Your task to perform on an android device: open app "NewsBreak: Local News & Alerts" (install if not already installed) Image 0: 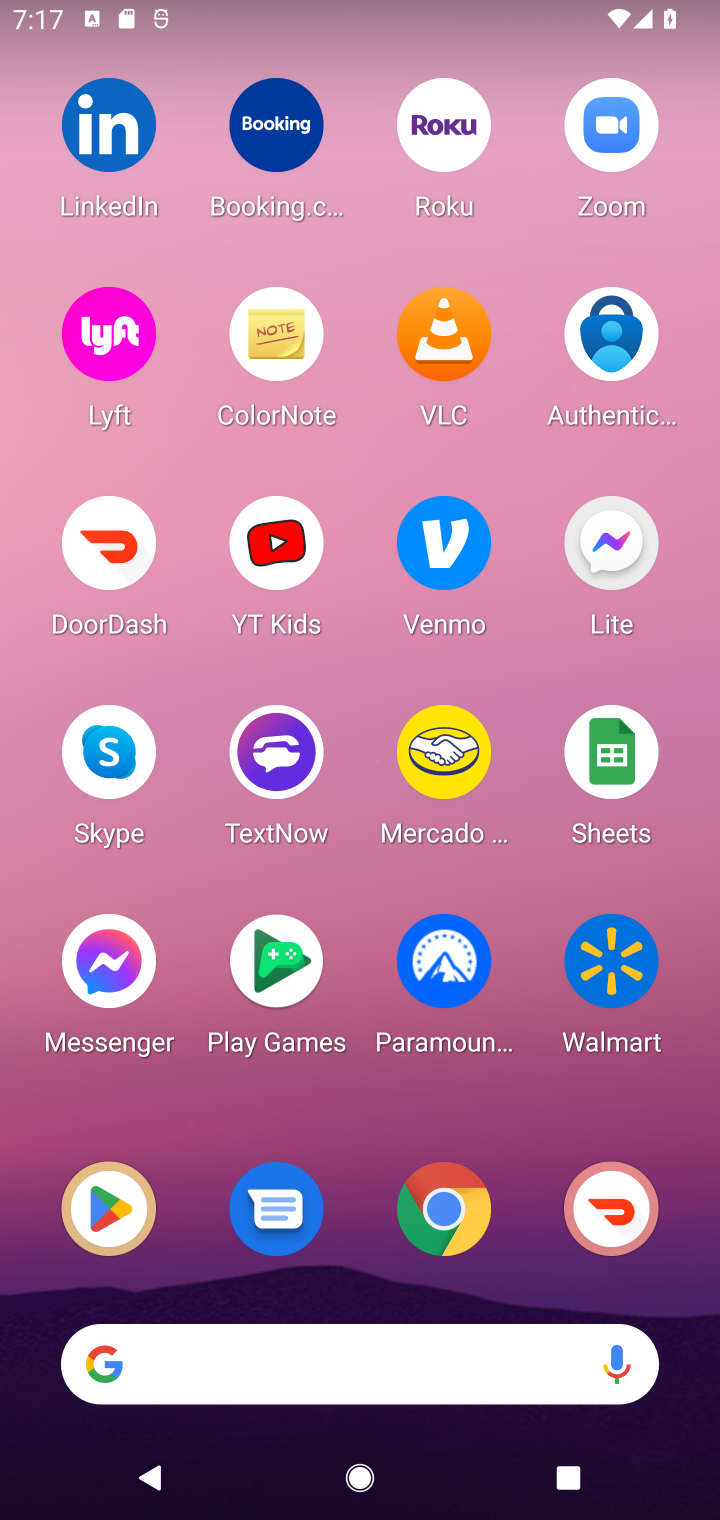
Step 0: click (119, 1219)
Your task to perform on an android device: open app "NewsBreak: Local News & Alerts" (install if not already installed) Image 1: 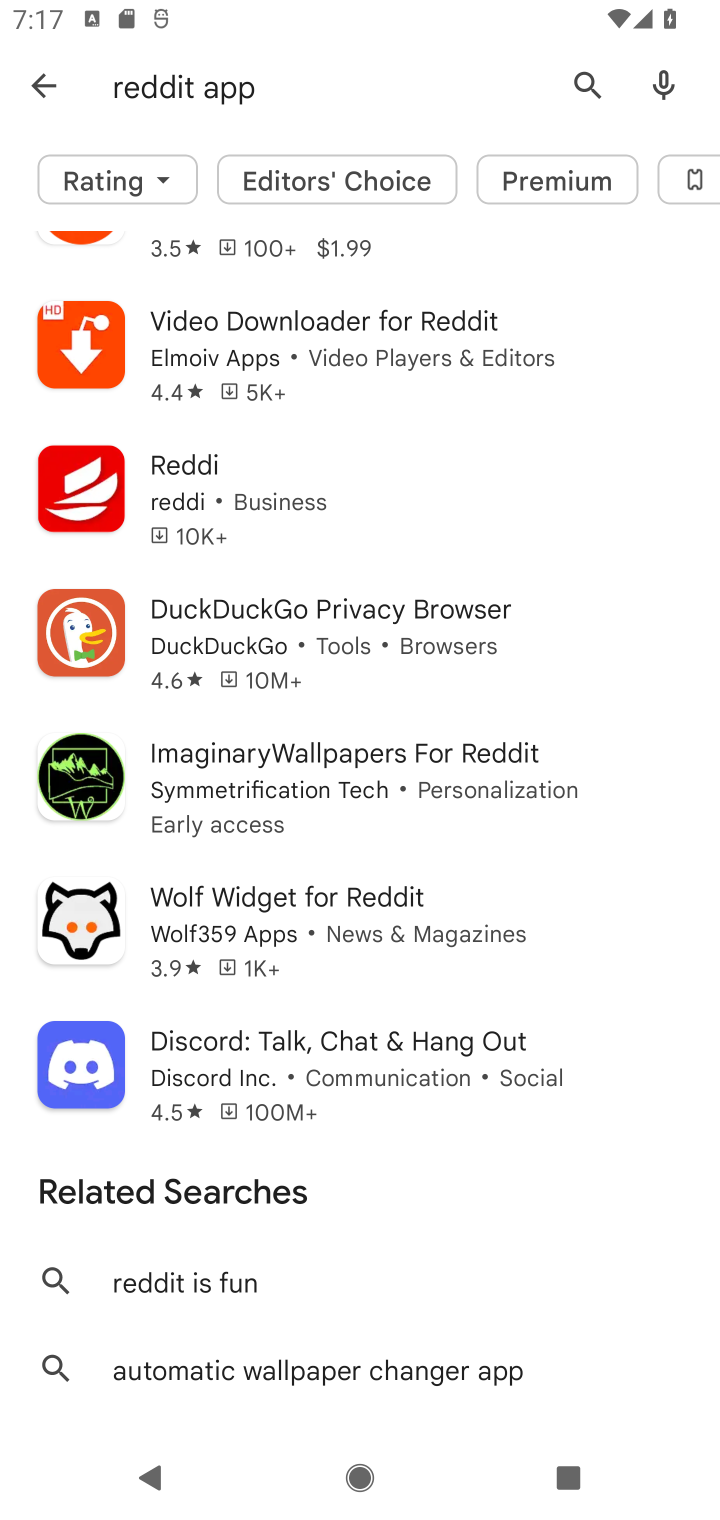
Step 1: click (599, 91)
Your task to perform on an android device: open app "NewsBreak: Local News & Alerts" (install if not already installed) Image 2: 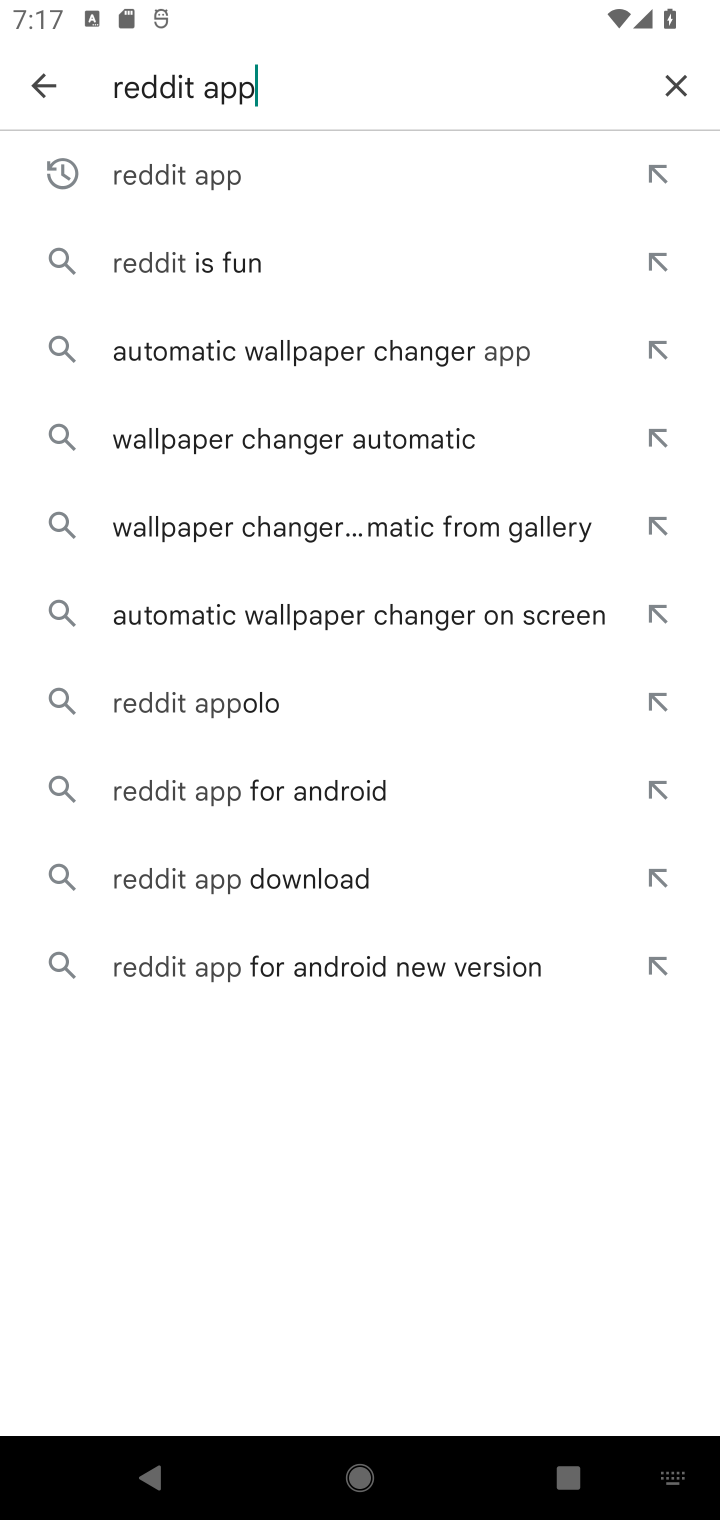
Step 2: click (655, 91)
Your task to perform on an android device: open app "NewsBreak: Local News & Alerts" (install if not already installed) Image 3: 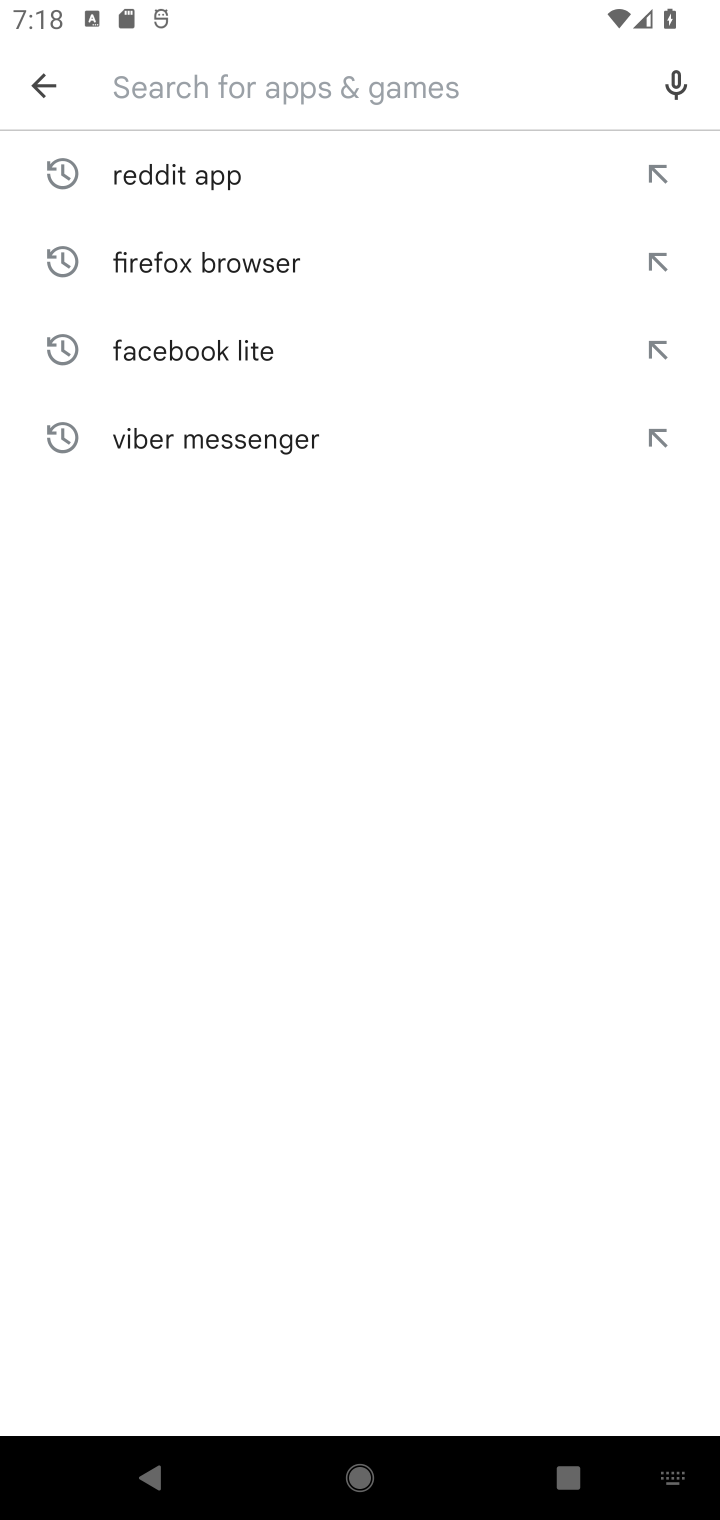
Step 3: type "NewsBreak: Local News & Alerts"
Your task to perform on an android device: open app "NewsBreak: Local News & Alerts" (install if not already installed) Image 4: 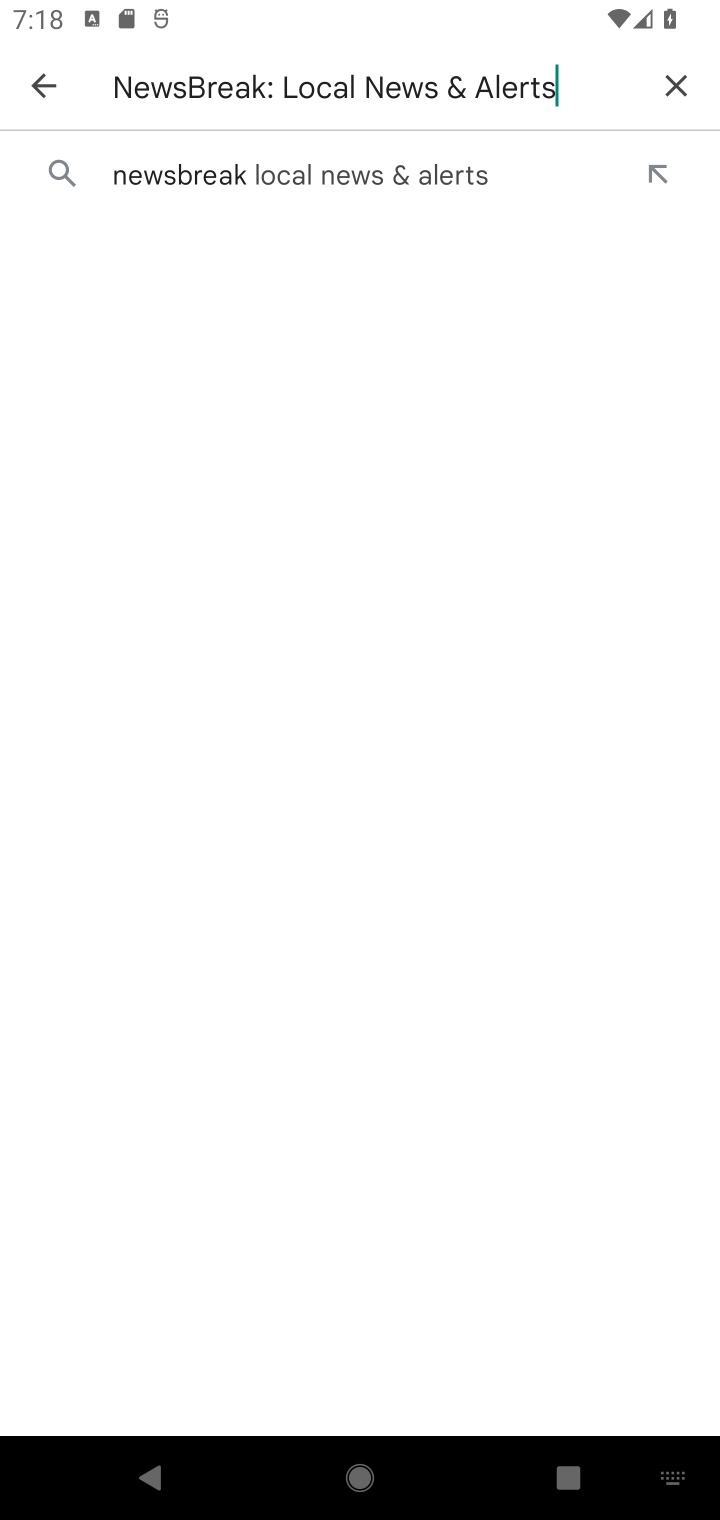
Step 4: click (404, 185)
Your task to perform on an android device: open app "NewsBreak: Local News & Alerts" (install if not already installed) Image 5: 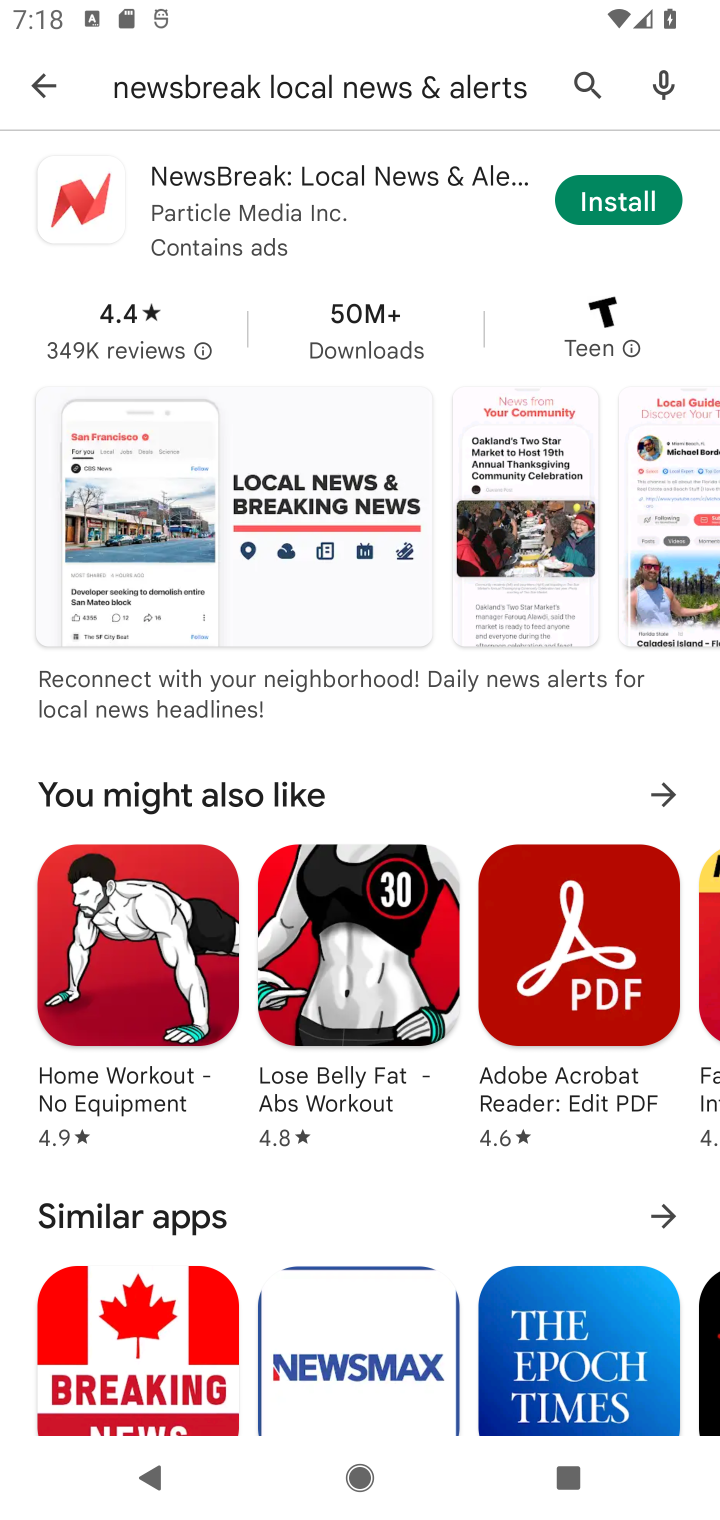
Step 5: click (616, 208)
Your task to perform on an android device: open app "NewsBreak: Local News & Alerts" (install if not already installed) Image 6: 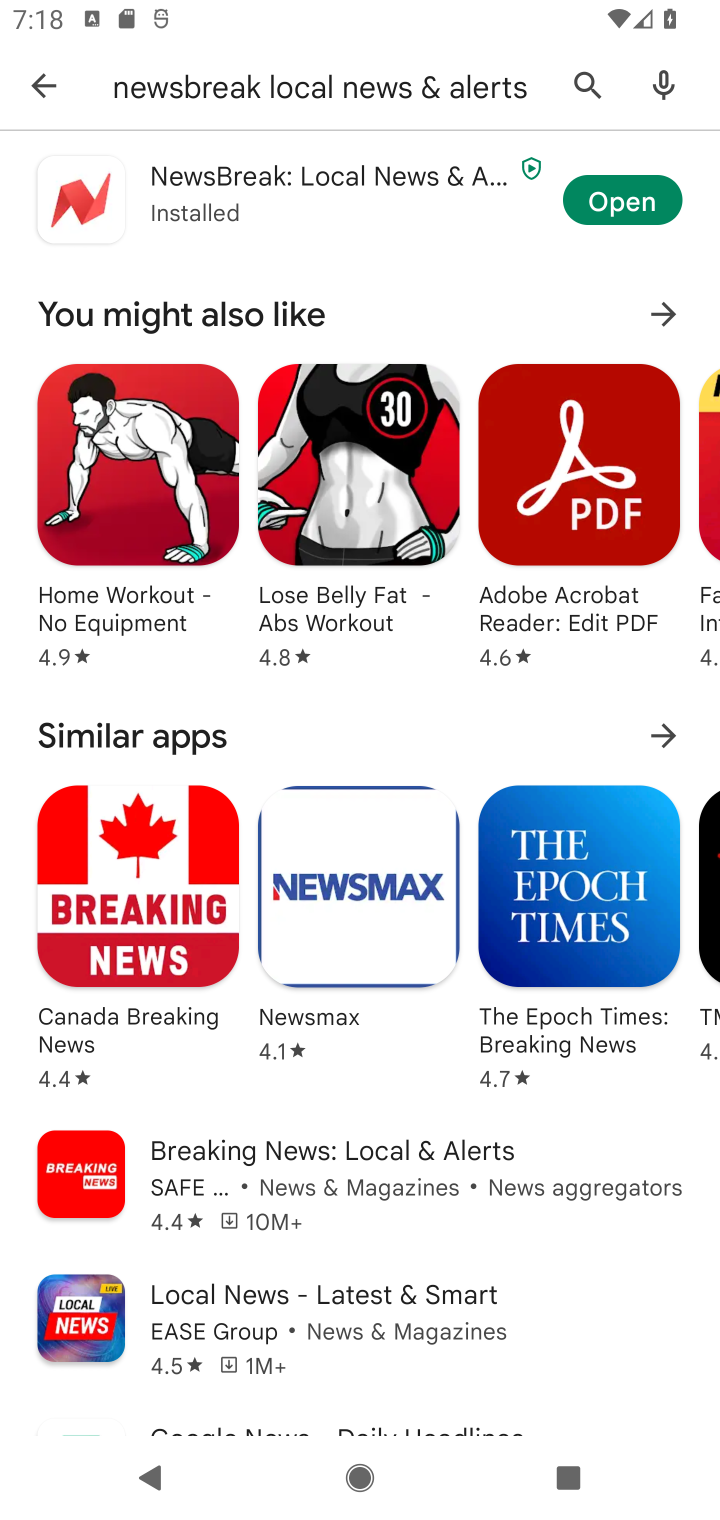
Step 6: click (611, 206)
Your task to perform on an android device: open app "NewsBreak: Local News & Alerts" (install if not already installed) Image 7: 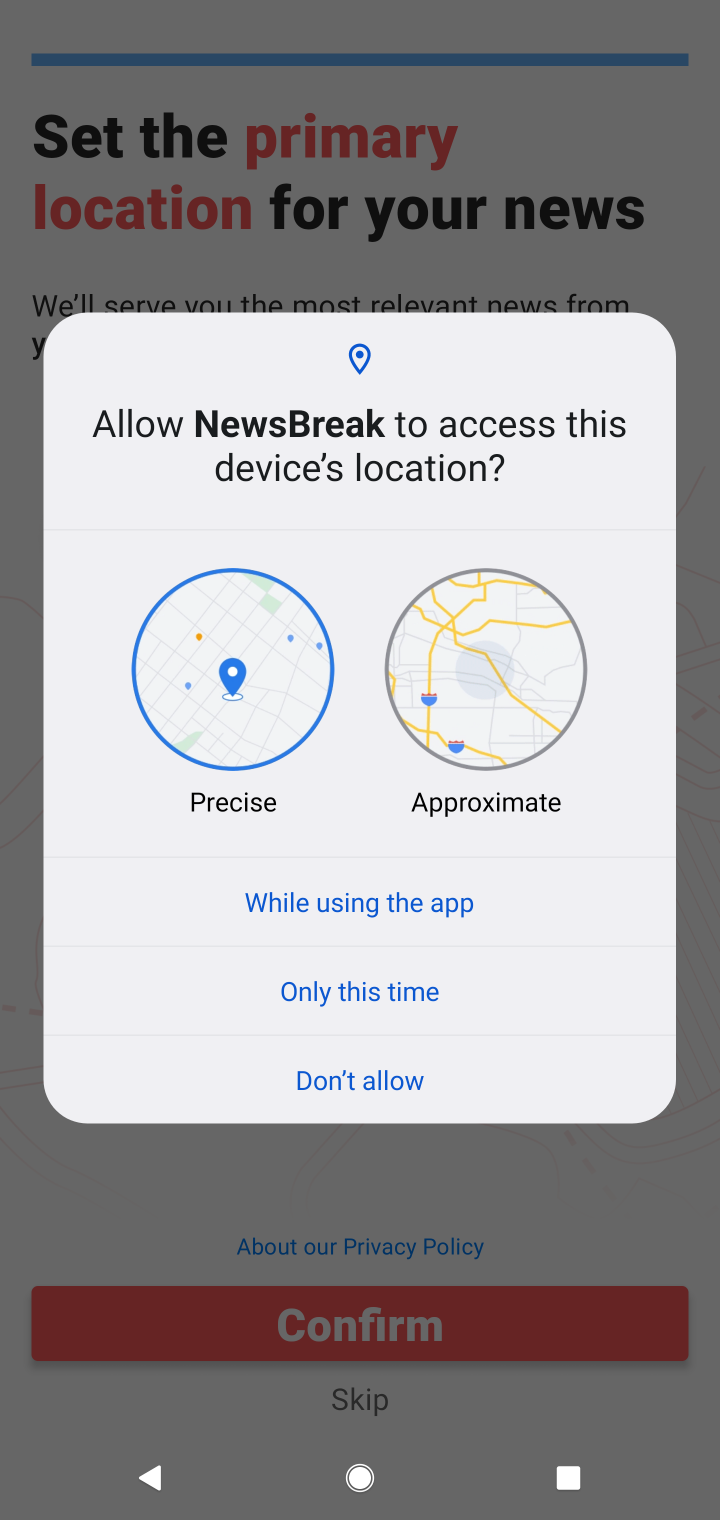
Step 7: task complete